Your task to perform on an android device: star an email in the gmail app Image 0: 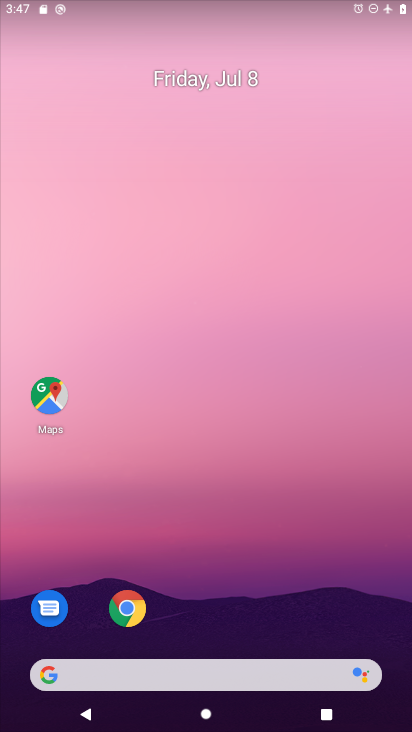
Step 0: drag from (297, 673) to (410, 521)
Your task to perform on an android device: star an email in the gmail app Image 1: 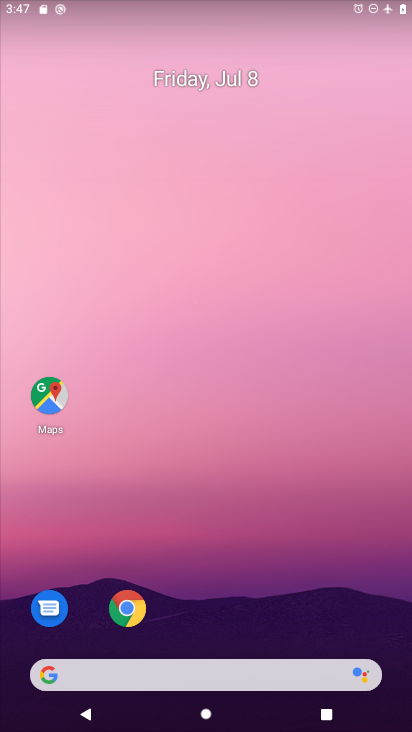
Step 1: drag from (166, 660) to (225, 192)
Your task to perform on an android device: star an email in the gmail app Image 2: 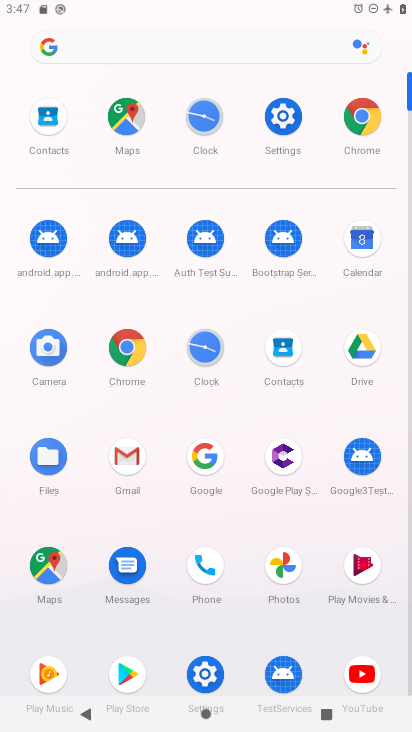
Step 2: click (121, 455)
Your task to perform on an android device: star an email in the gmail app Image 3: 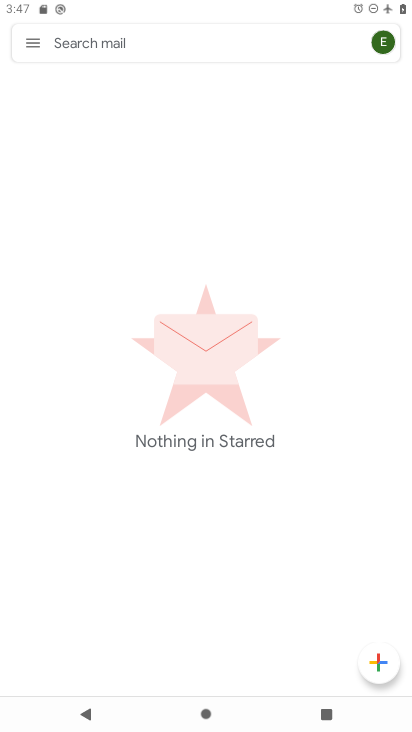
Step 3: task complete